Your task to perform on an android device: toggle pop-ups in chrome Image 0: 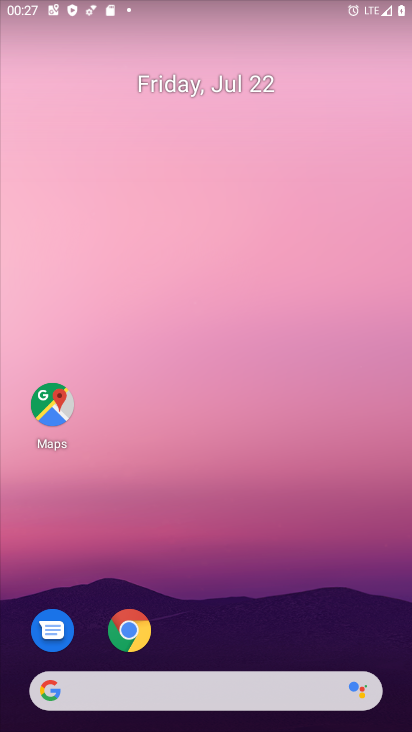
Step 0: click (127, 630)
Your task to perform on an android device: toggle pop-ups in chrome Image 1: 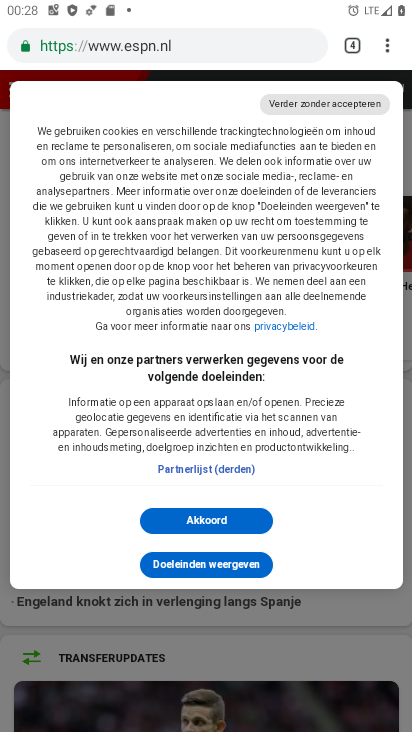
Step 1: click (384, 47)
Your task to perform on an android device: toggle pop-ups in chrome Image 2: 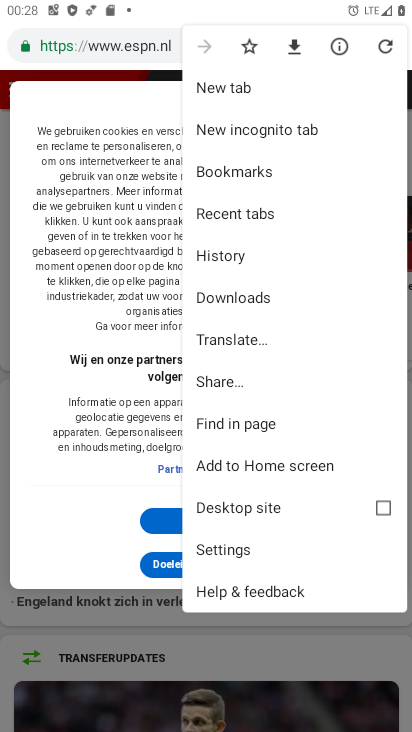
Step 2: click (231, 552)
Your task to perform on an android device: toggle pop-ups in chrome Image 3: 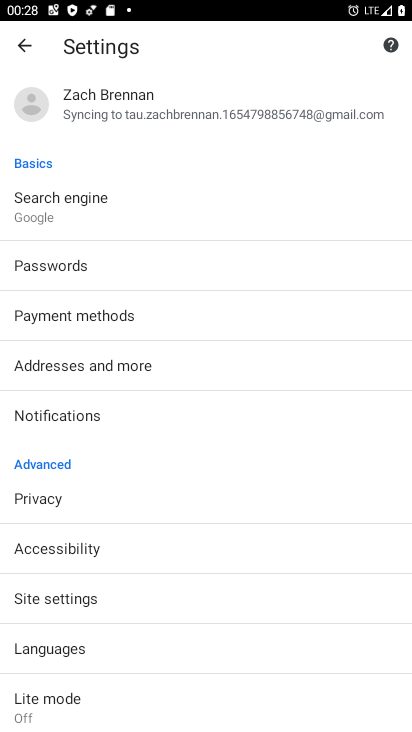
Step 3: click (87, 596)
Your task to perform on an android device: toggle pop-ups in chrome Image 4: 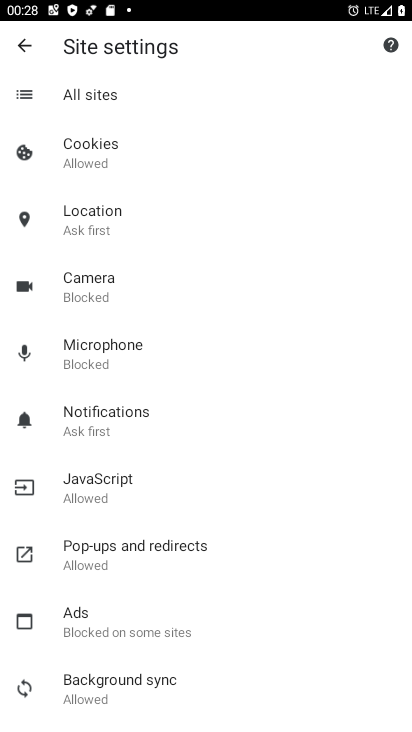
Step 4: click (140, 557)
Your task to perform on an android device: toggle pop-ups in chrome Image 5: 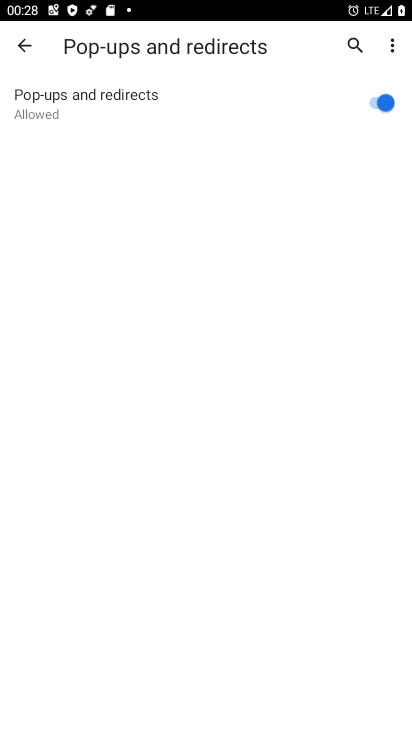
Step 5: click (385, 101)
Your task to perform on an android device: toggle pop-ups in chrome Image 6: 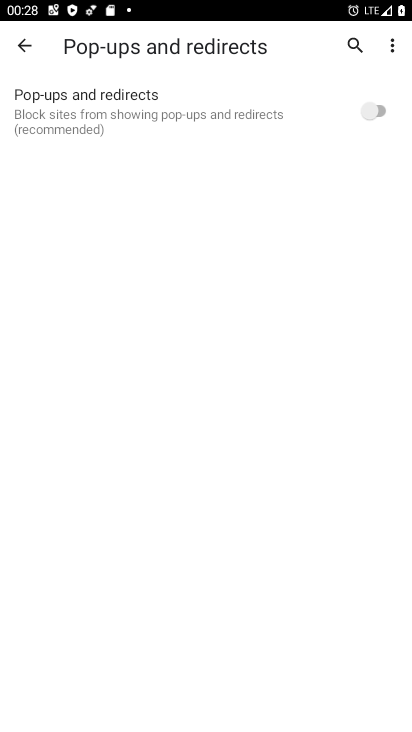
Step 6: task complete